Your task to perform on an android device: Open calendar and show me the third week of next month Image 0: 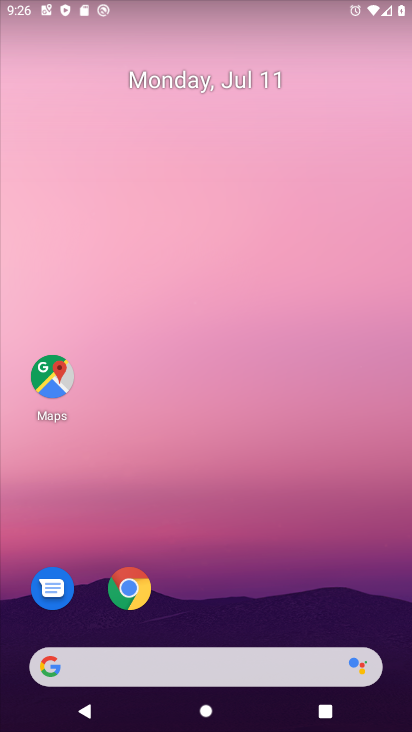
Step 0: drag from (174, 606) to (275, 2)
Your task to perform on an android device: Open calendar and show me the third week of next month Image 1: 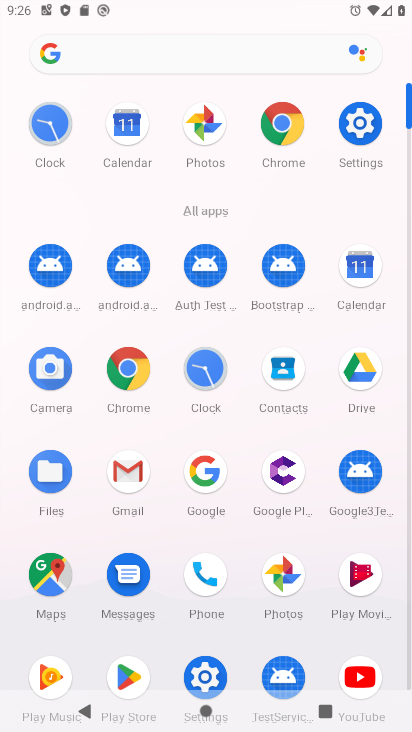
Step 1: click (344, 262)
Your task to perform on an android device: Open calendar and show me the third week of next month Image 2: 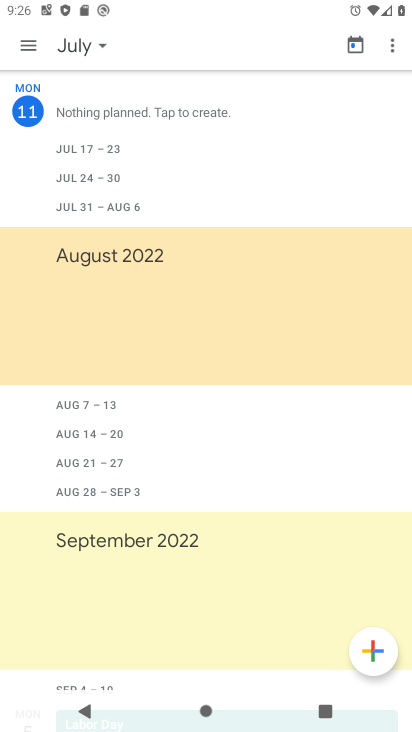
Step 2: click (100, 46)
Your task to perform on an android device: Open calendar and show me the third week of next month Image 3: 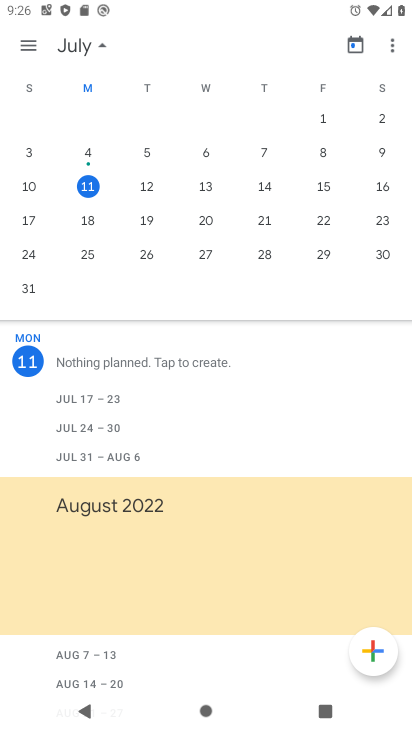
Step 3: drag from (344, 201) to (44, 180)
Your task to perform on an android device: Open calendar and show me the third week of next month Image 4: 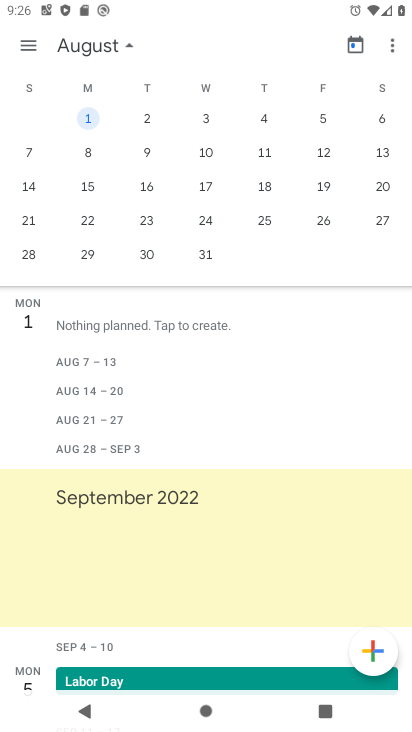
Step 4: click (81, 184)
Your task to perform on an android device: Open calendar and show me the third week of next month Image 5: 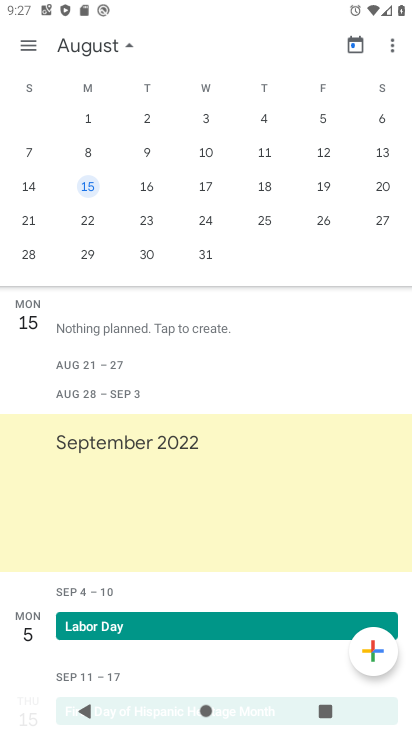
Step 5: task complete